Your task to perform on an android device: change the clock display to analog Image 0: 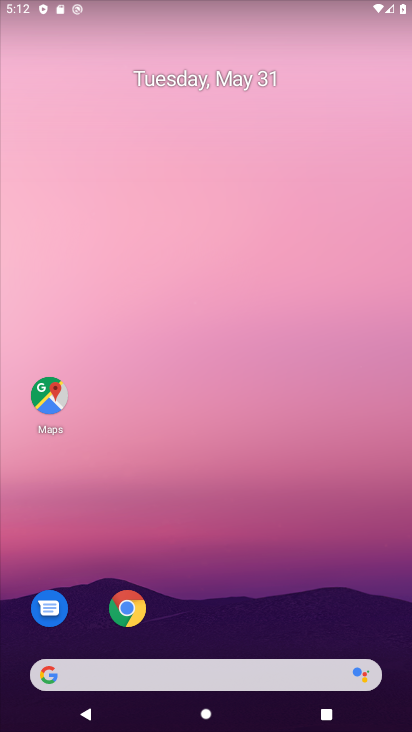
Step 0: drag from (231, 597) to (231, 165)
Your task to perform on an android device: change the clock display to analog Image 1: 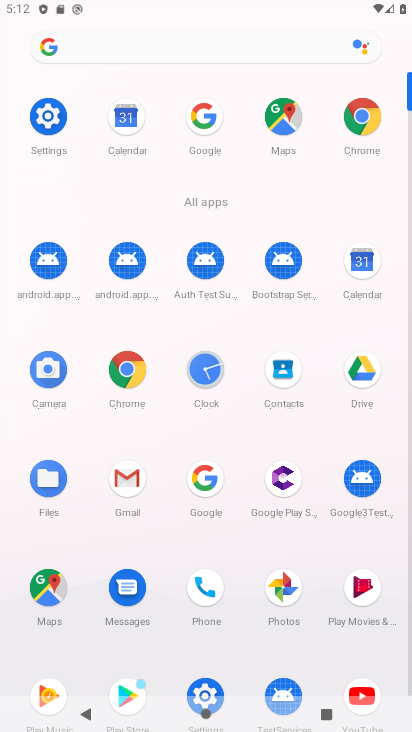
Step 1: click (206, 372)
Your task to perform on an android device: change the clock display to analog Image 2: 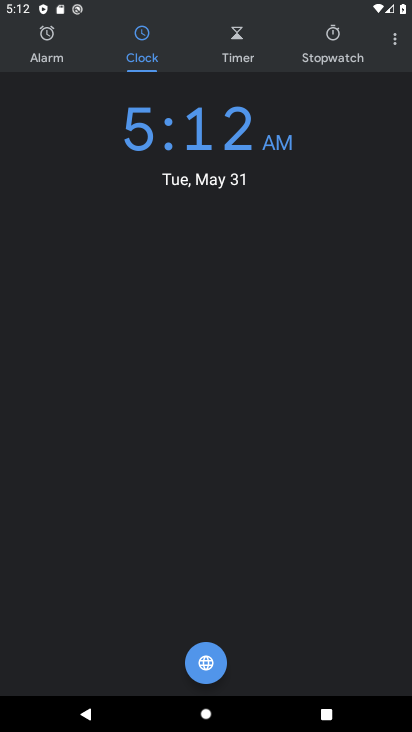
Step 2: click (400, 37)
Your task to perform on an android device: change the clock display to analog Image 3: 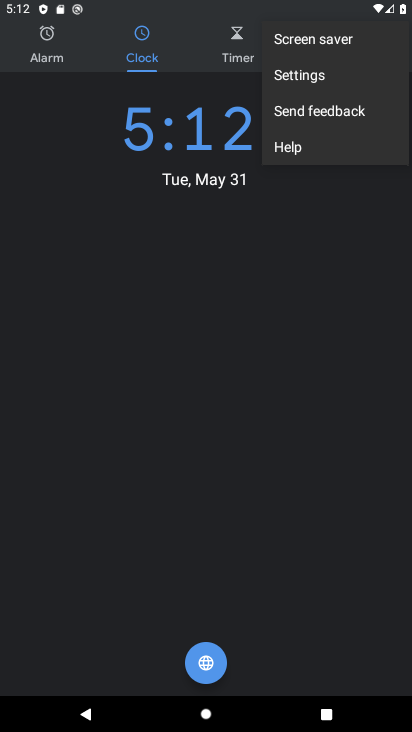
Step 3: click (329, 78)
Your task to perform on an android device: change the clock display to analog Image 4: 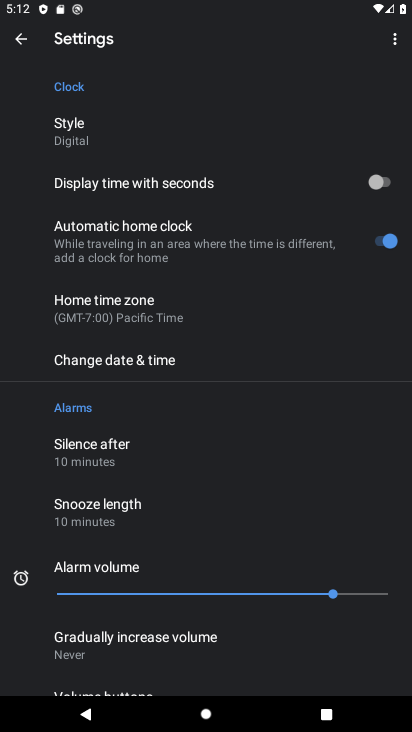
Step 4: click (85, 144)
Your task to perform on an android device: change the clock display to analog Image 5: 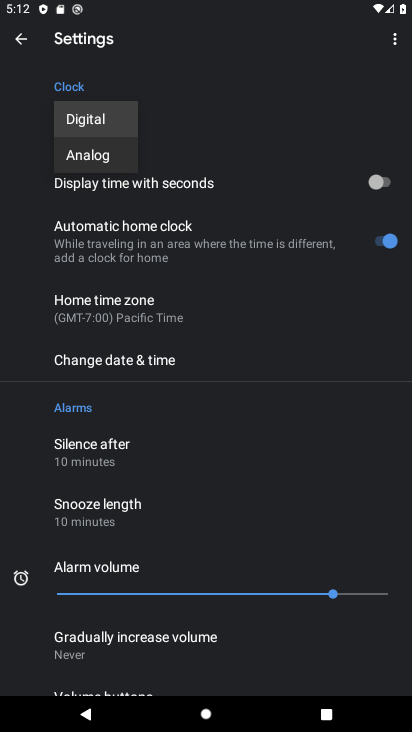
Step 5: click (108, 163)
Your task to perform on an android device: change the clock display to analog Image 6: 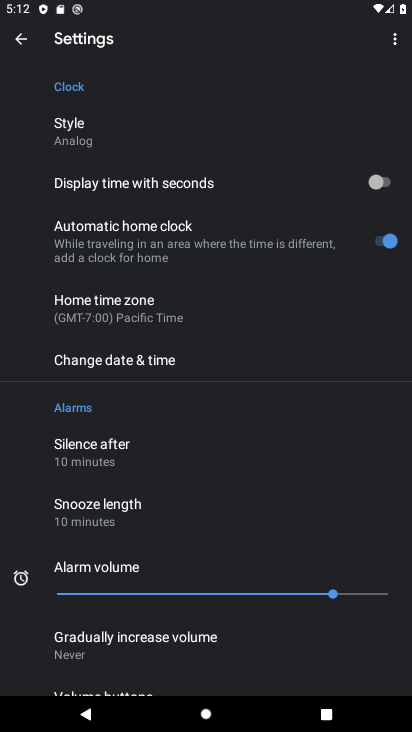
Step 6: task complete